Your task to perform on an android device: What's the weather going to be tomorrow? Image 0: 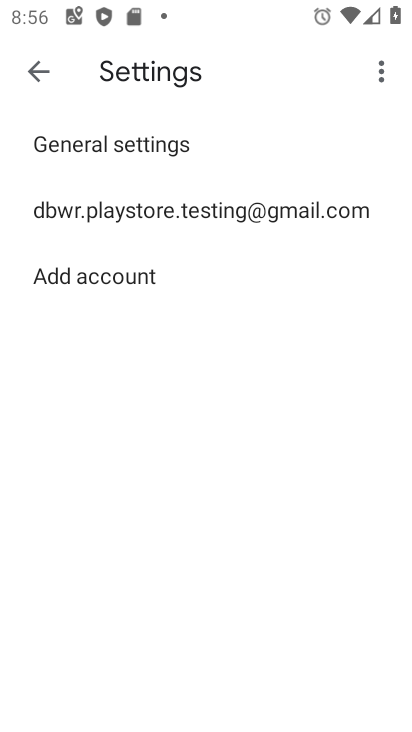
Step 0: press home button
Your task to perform on an android device: What's the weather going to be tomorrow? Image 1: 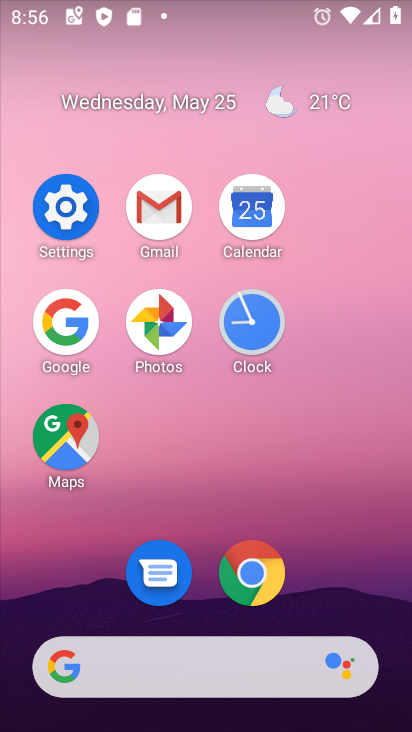
Step 1: click (76, 321)
Your task to perform on an android device: What's the weather going to be tomorrow? Image 2: 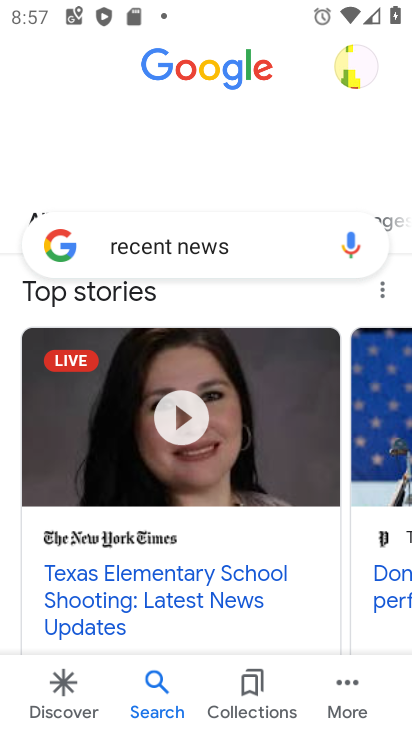
Step 2: click (249, 247)
Your task to perform on an android device: What's the weather going to be tomorrow? Image 3: 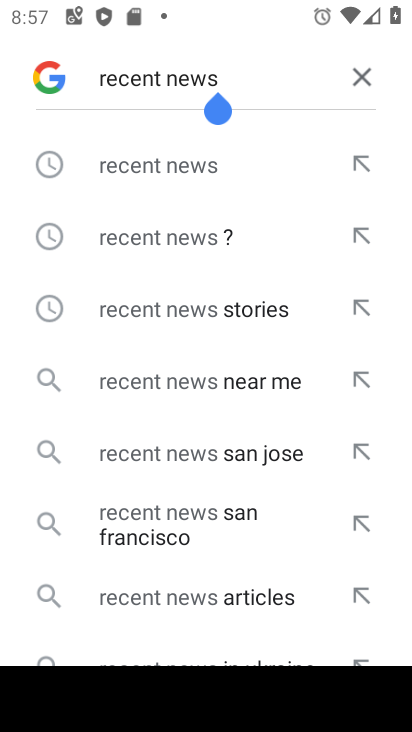
Step 3: click (366, 71)
Your task to perform on an android device: What's the weather going to be tomorrow? Image 4: 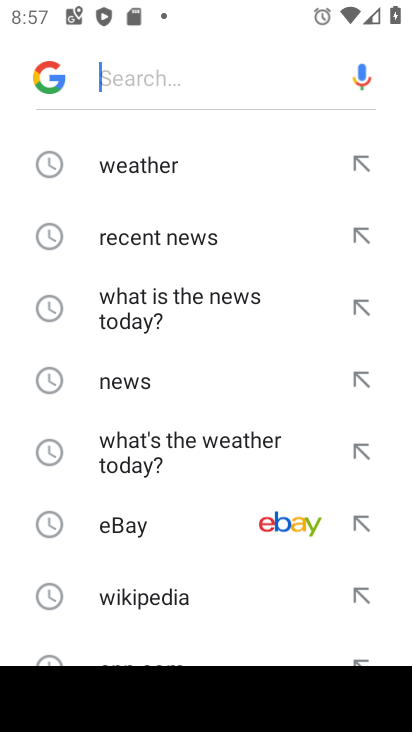
Step 4: click (101, 161)
Your task to perform on an android device: What's the weather going to be tomorrow? Image 5: 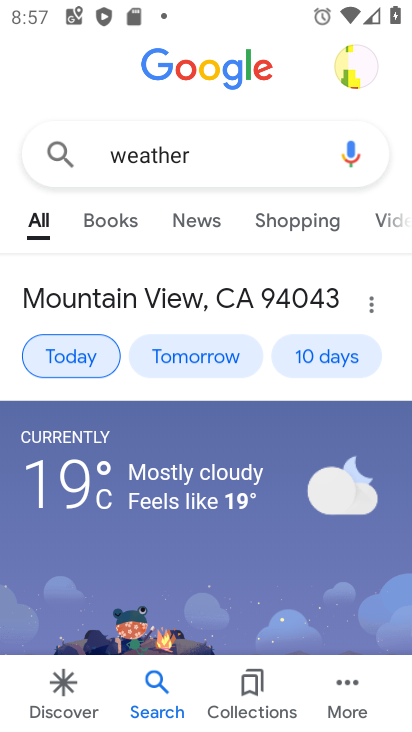
Step 5: click (224, 350)
Your task to perform on an android device: What's the weather going to be tomorrow? Image 6: 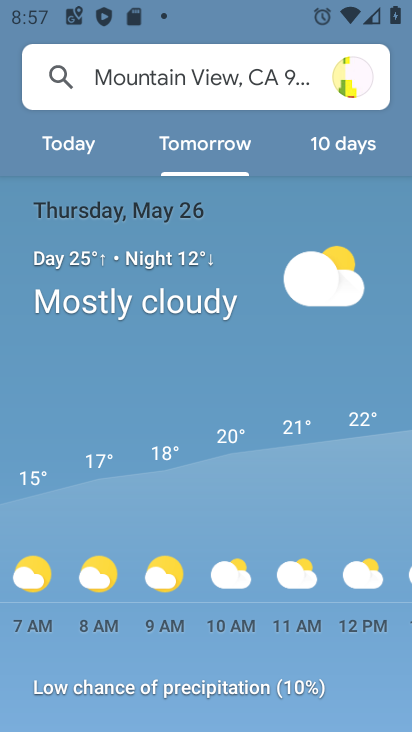
Step 6: task complete